Your task to perform on an android device: delete location history Image 0: 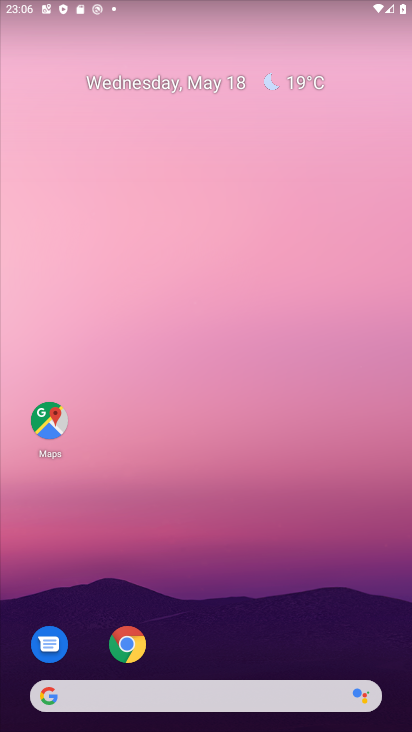
Step 0: drag from (287, 629) to (292, 200)
Your task to perform on an android device: delete location history Image 1: 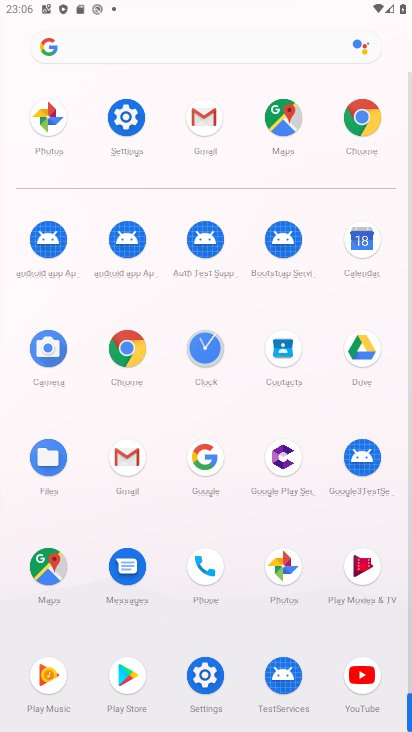
Step 1: click (279, 122)
Your task to perform on an android device: delete location history Image 2: 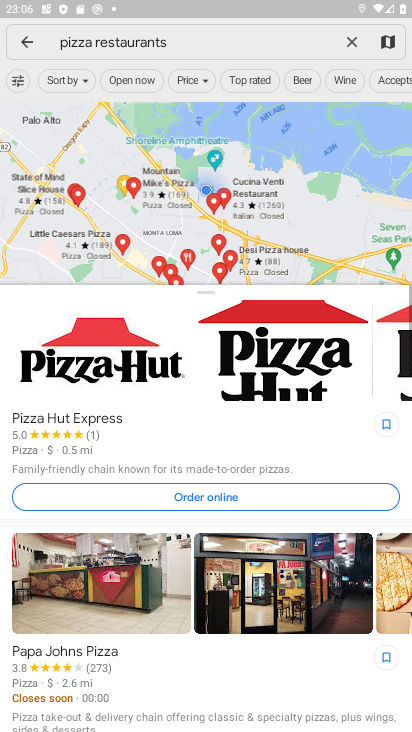
Step 2: click (22, 35)
Your task to perform on an android device: delete location history Image 3: 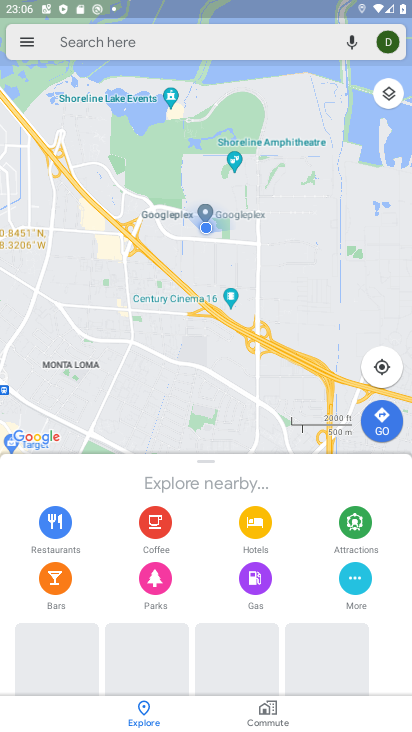
Step 3: click (22, 35)
Your task to perform on an android device: delete location history Image 4: 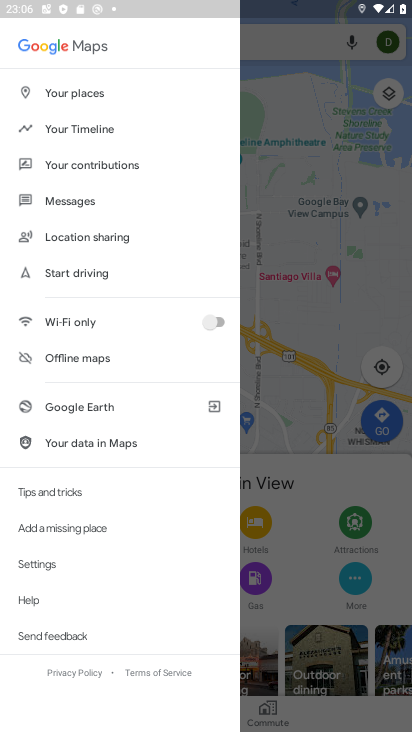
Step 4: click (23, 37)
Your task to perform on an android device: delete location history Image 5: 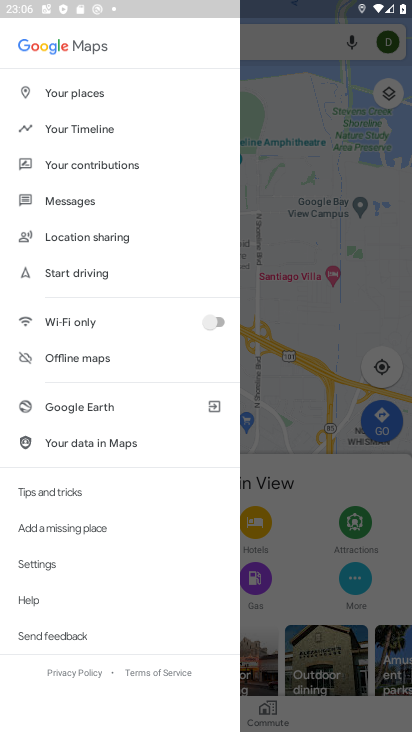
Step 5: drag from (143, 506) to (162, 138)
Your task to perform on an android device: delete location history Image 6: 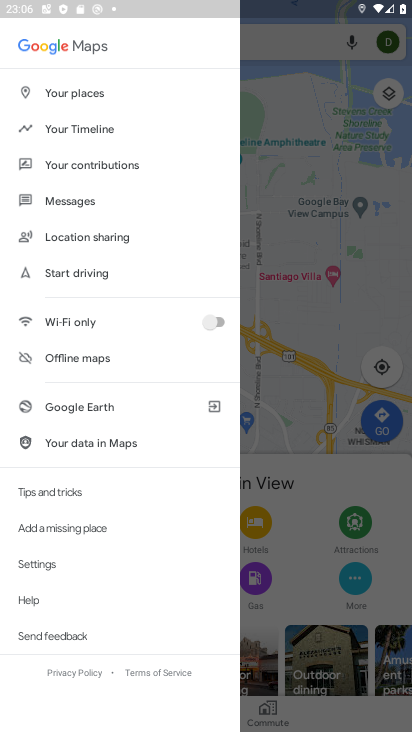
Step 6: click (42, 558)
Your task to perform on an android device: delete location history Image 7: 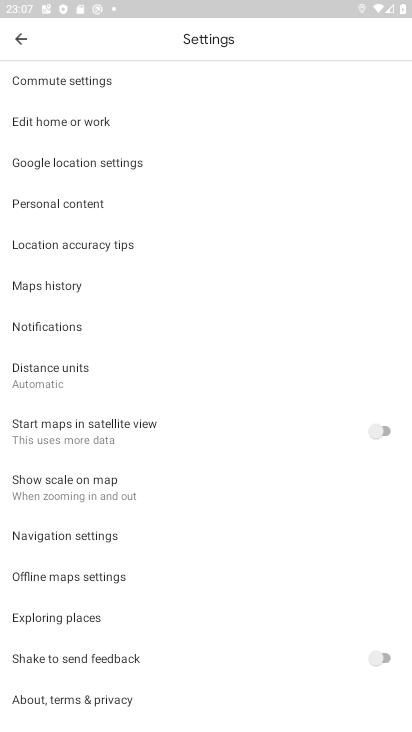
Step 7: click (63, 292)
Your task to perform on an android device: delete location history Image 8: 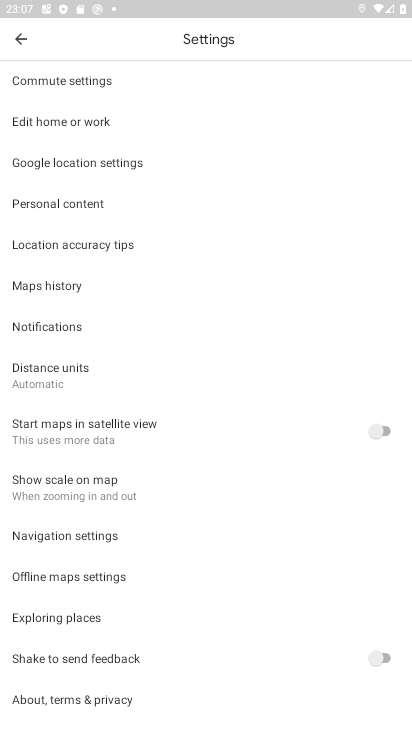
Step 8: click (74, 287)
Your task to perform on an android device: delete location history Image 9: 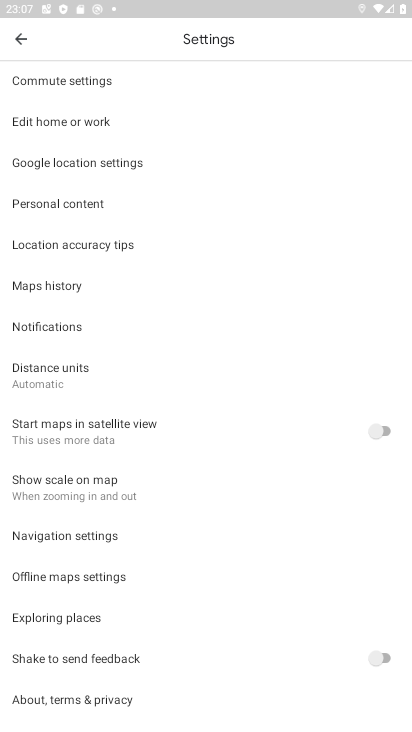
Step 9: click (73, 286)
Your task to perform on an android device: delete location history Image 10: 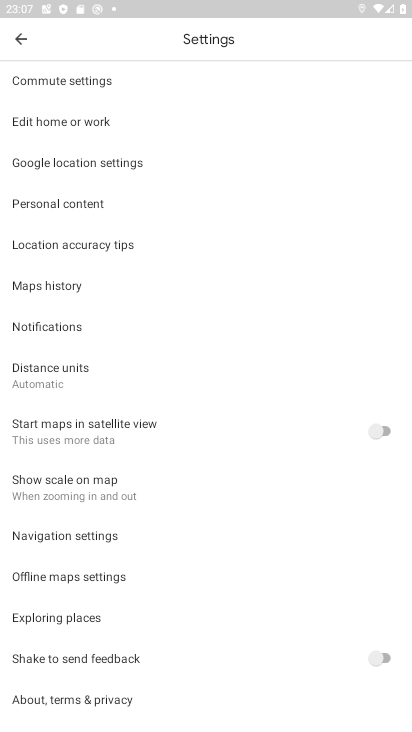
Step 10: task complete